Your task to perform on an android device: read, delete, or share a saved page in the chrome app Image 0: 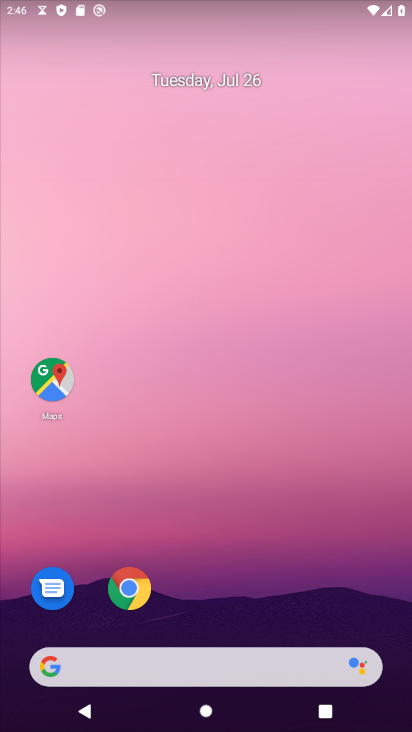
Step 0: drag from (317, 580) to (375, 86)
Your task to perform on an android device: read, delete, or share a saved page in the chrome app Image 1: 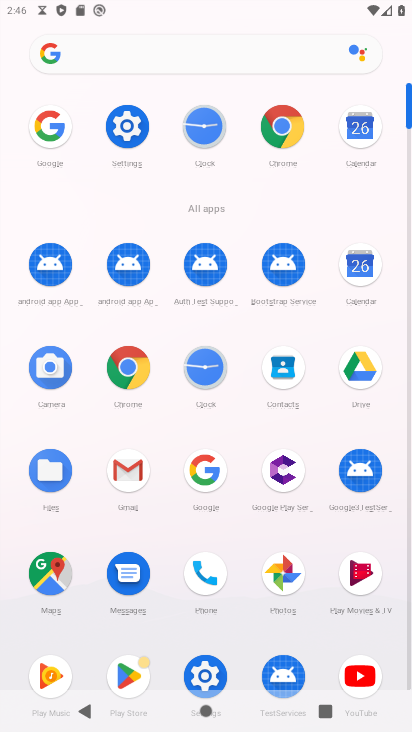
Step 1: click (299, 122)
Your task to perform on an android device: read, delete, or share a saved page in the chrome app Image 2: 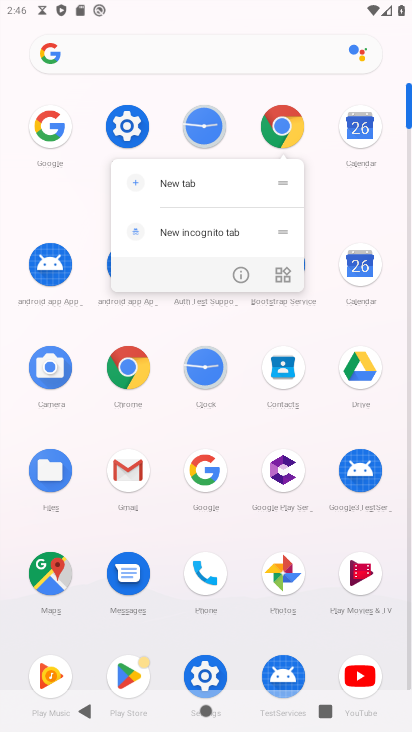
Step 2: click (280, 136)
Your task to perform on an android device: read, delete, or share a saved page in the chrome app Image 3: 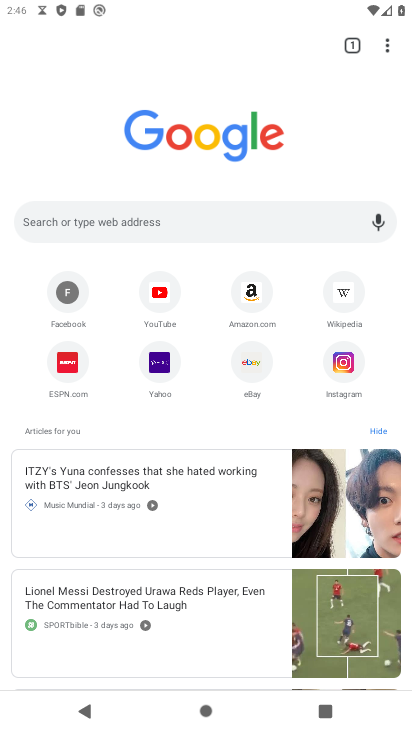
Step 3: drag from (388, 49) to (239, 291)
Your task to perform on an android device: read, delete, or share a saved page in the chrome app Image 4: 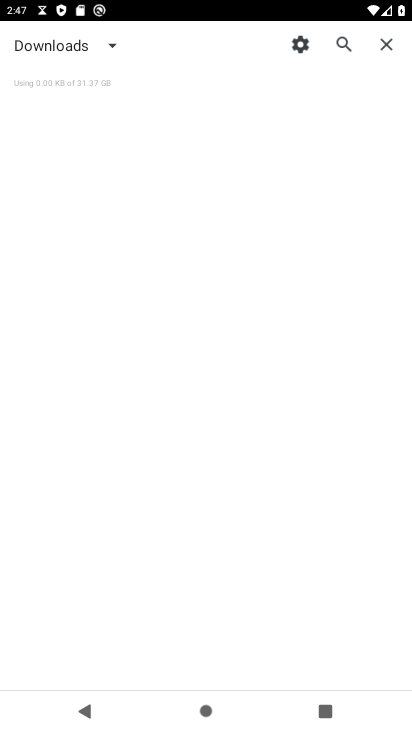
Step 4: click (108, 47)
Your task to perform on an android device: read, delete, or share a saved page in the chrome app Image 5: 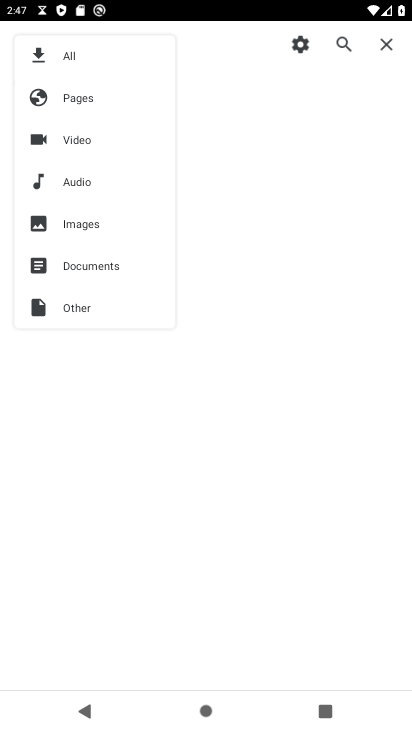
Step 5: click (74, 91)
Your task to perform on an android device: read, delete, or share a saved page in the chrome app Image 6: 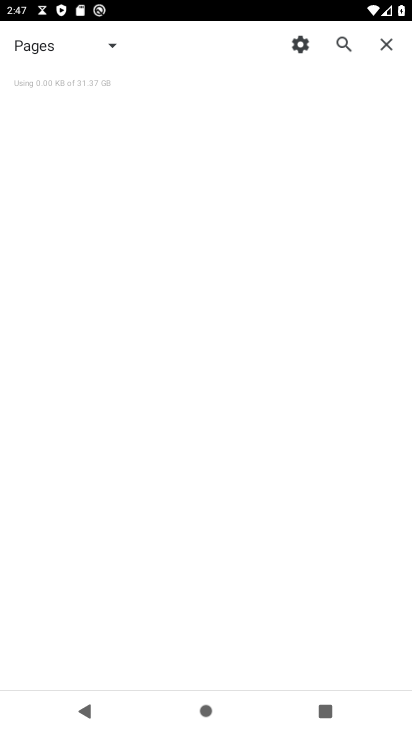
Step 6: task complete